Your task to perform on an android device: Open settings Image 0: 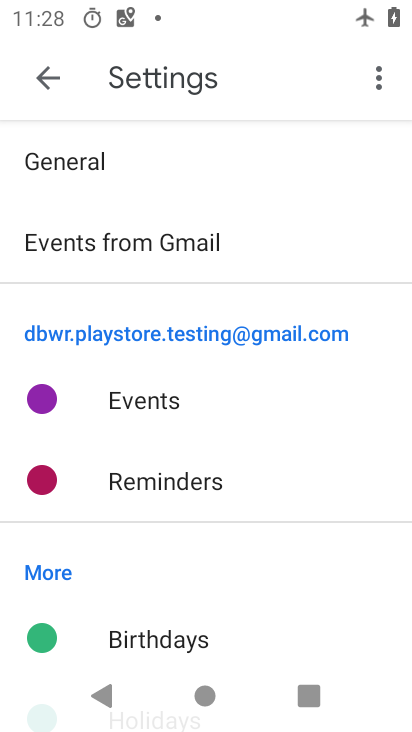
Step 0: press home button
Your task to perform on an android device: Open settings Image 1: 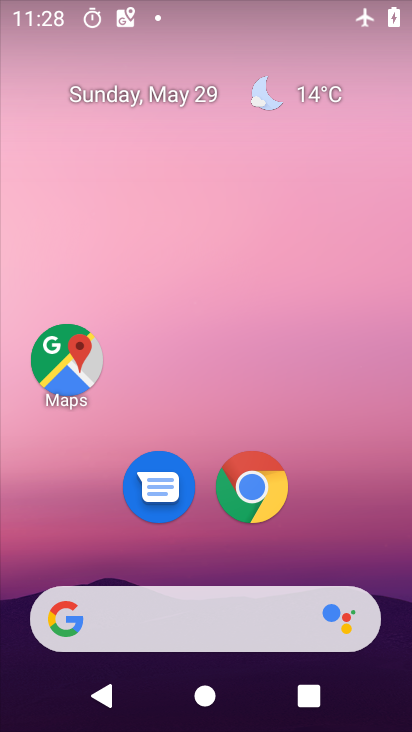
Step 1: drag from (395, 660) to (360, 293)
Your task to perform on an android device: Open settings Image 2: 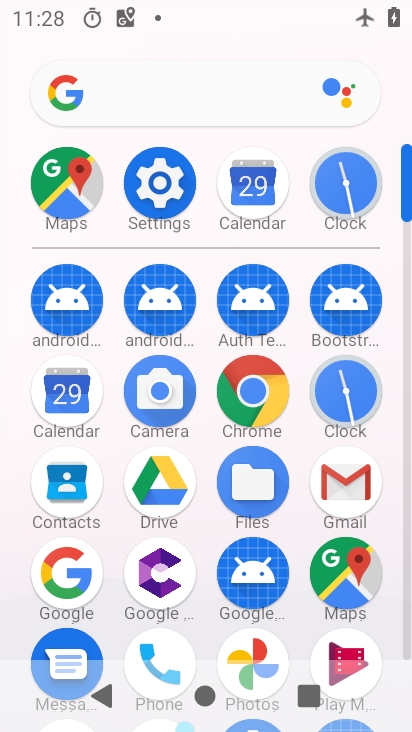
Step 2: click (171, 189)
Your task to perform on an android device: Open settings Image 3: 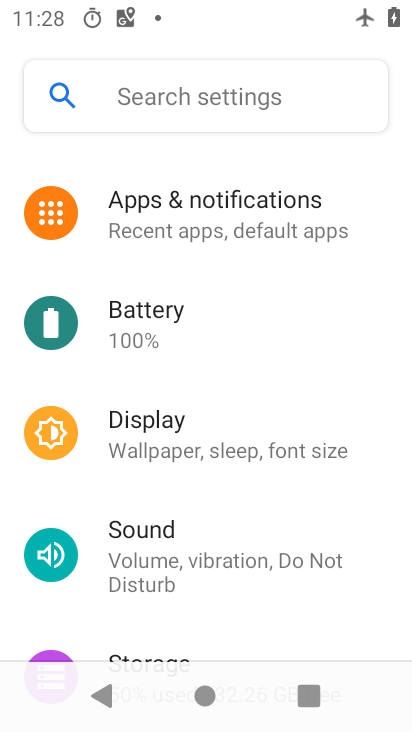
Step 3: task complete